Your task to perform on an android device: Open Android settings Image 0: 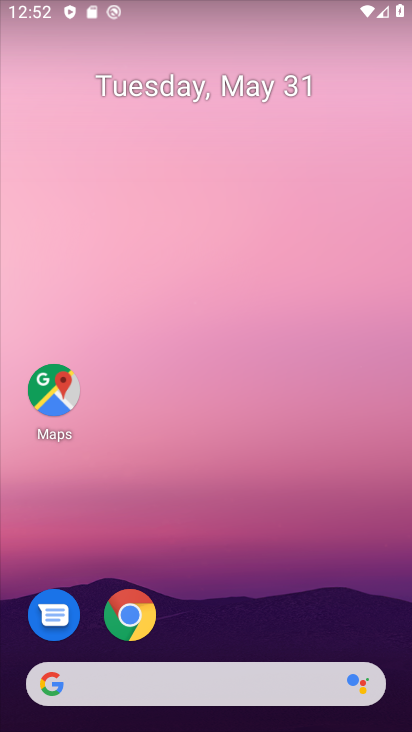
Step 0: drag from (362, 603) to (319, 224)
Your task to perform on an android device: Open Android settings Image 1: 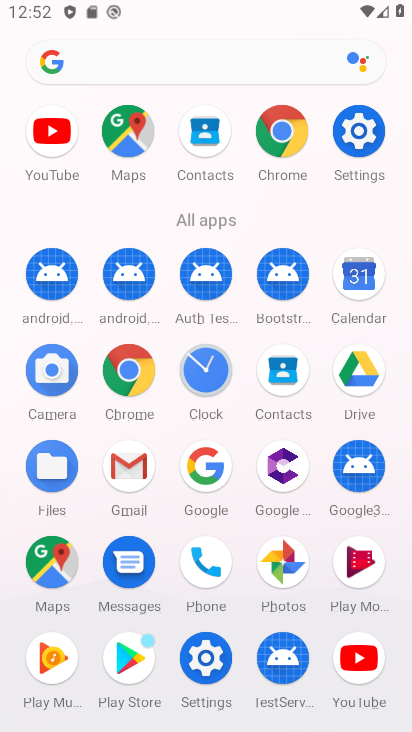
Step 1: click (366, 155)
Your task to perform on an android device: Open Android settings Image 2: 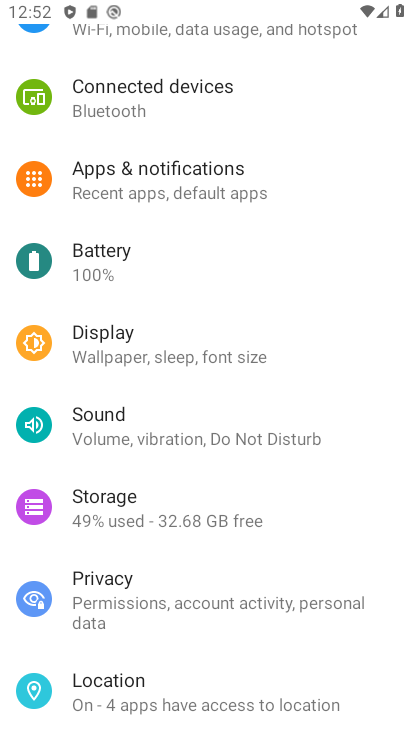
Step 2: drag from (253, 629) to (296, 222)
Your task to perform on an android device: Open Android settings Image 3: 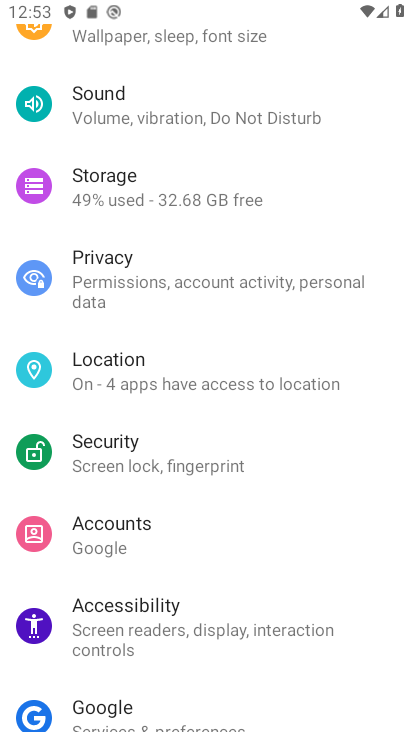
Step 3: drag from (254, 619) to (285, 264)
Your task to perform on an android device: Open Android settings Image 4: 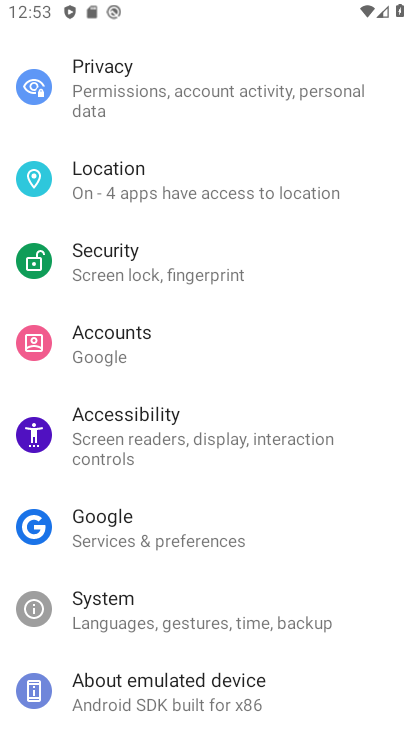
Step 4: drag from (259, 596) to (310, 230)
Your task to perform on an android device: Open Android settings Image 5: 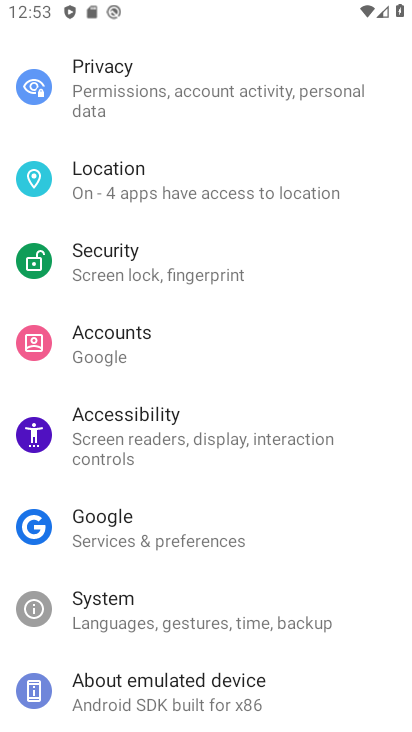
Step 5: drag from (277, 158) to (236, 731)
Your task to perform on an android device: Open Android settings Image 6: 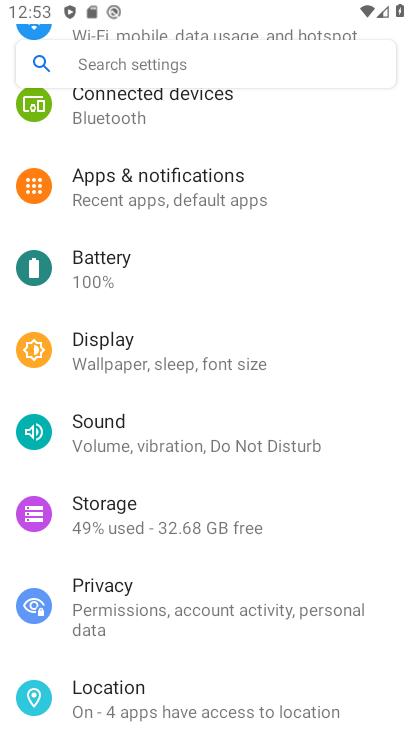
Step 6: drag from (273, 267) to (273, 639)
Your task to perform on an android device: Open Android settings Image 7: 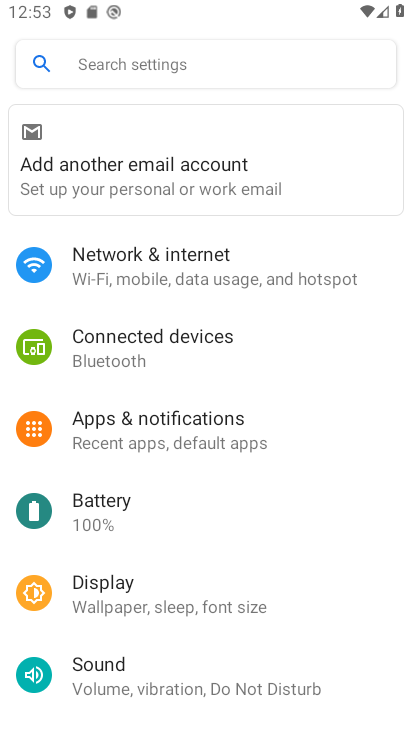
Step 7: drag from (300, 613) to (300, 266)
Your task to perform on an android device: Open Android settings Image 8: 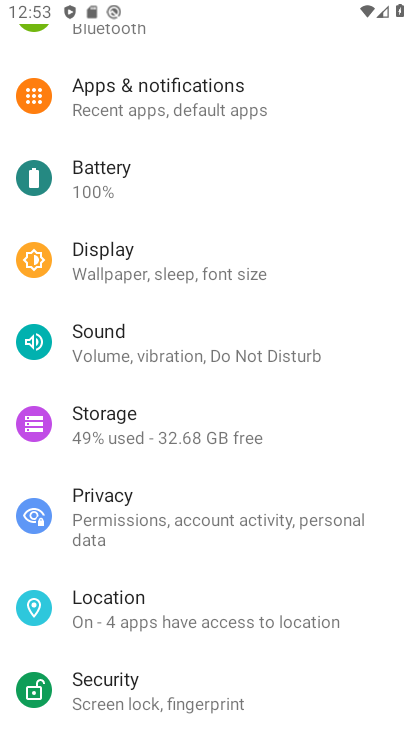
Step 8: drag from (249, 665) to (271, 198)
Your task to perform on an android device: Open Android settings Image 9: 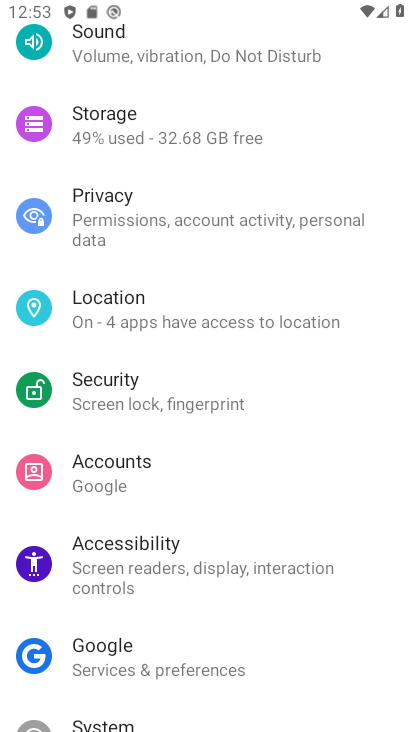
Step 9: drag from (242, 649) to (296, 194)
Your task to perform on an android device: Open Android settings Image 10: 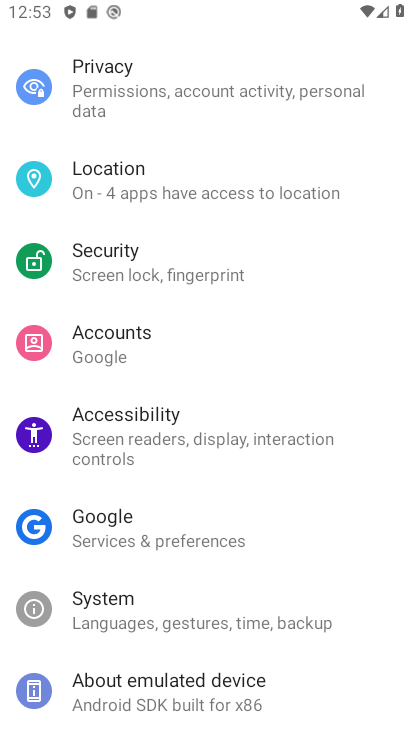
Step 10: click (181, 690)
Your task to perform on an android device: Open Android settings Image 11: 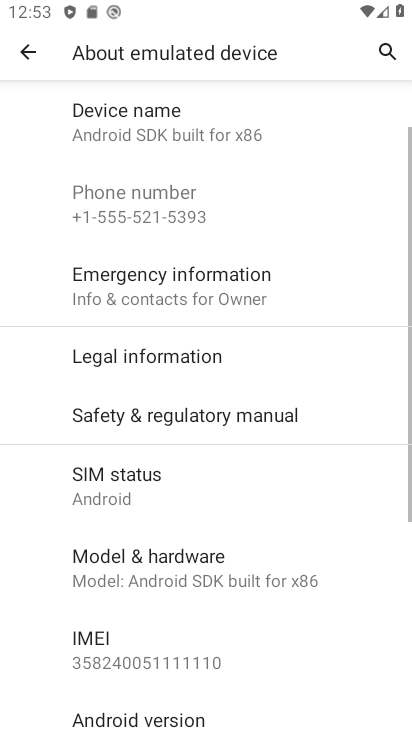
Step 11: drag from (208, 701) to (250, 397)
Your task to perform on an android device: Open Android settings Image 12: 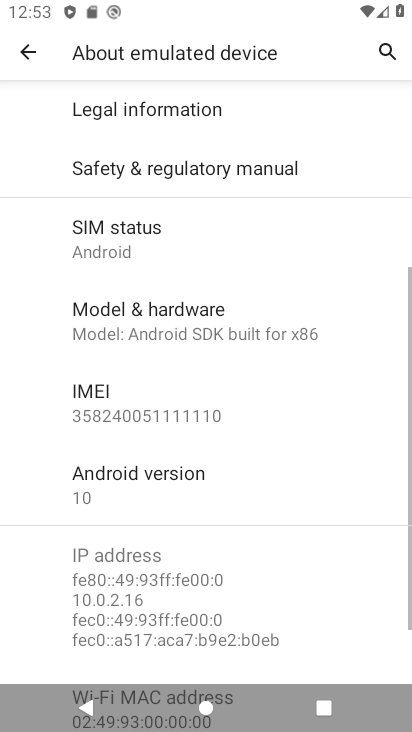
Step 12: click (213, 472)
Your task to perform on an android device: Open Android settings Image 13: 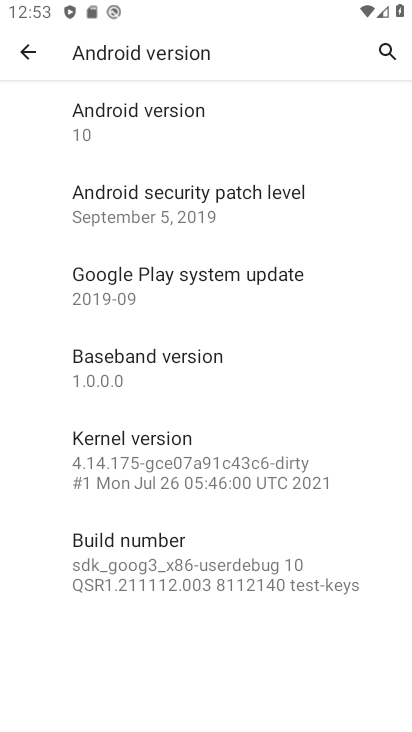
Step 13: task complete